Your task to perform on an android device: open app "Google Docs" (install if not already installed) Image 0: 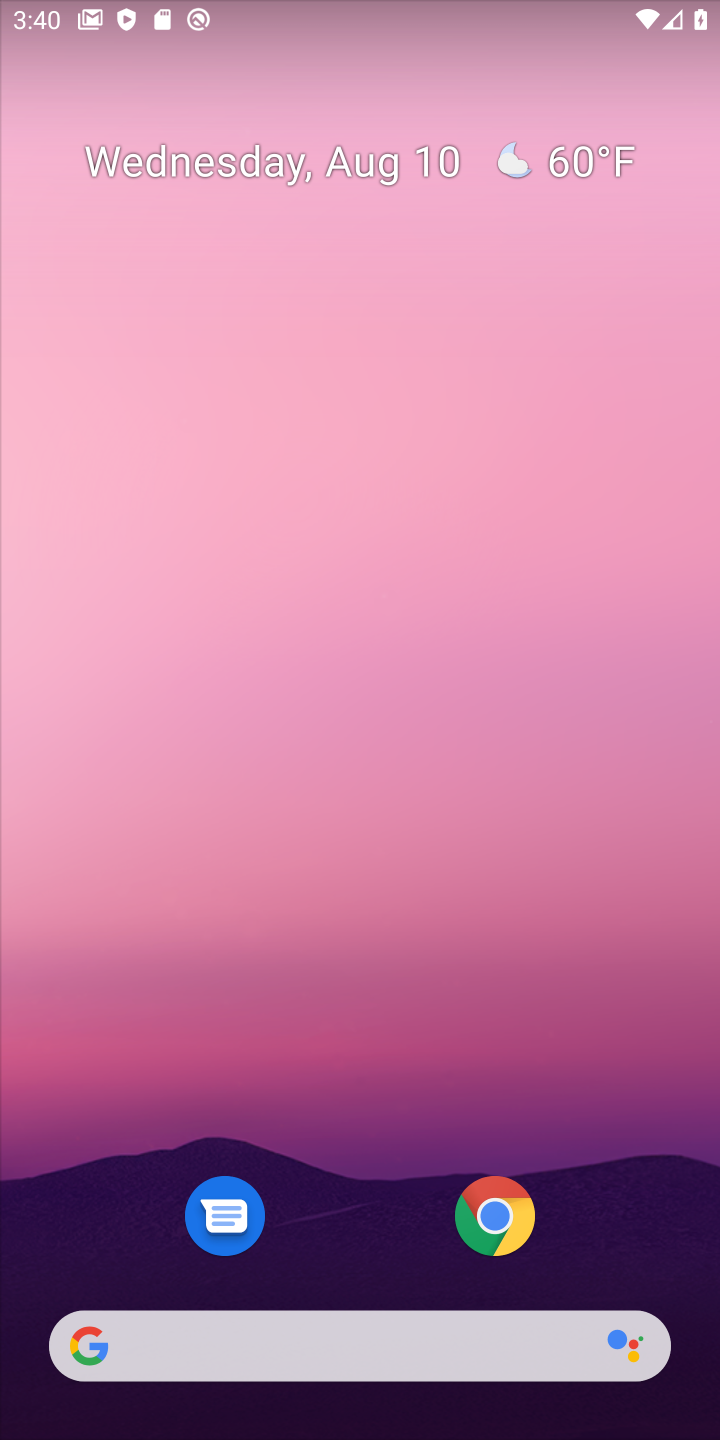
Step 0: drag from (438, 1303) to (448, 287)
Your task to perform on an android device: open app "Google Docs" (install if not already installed) Image 1: 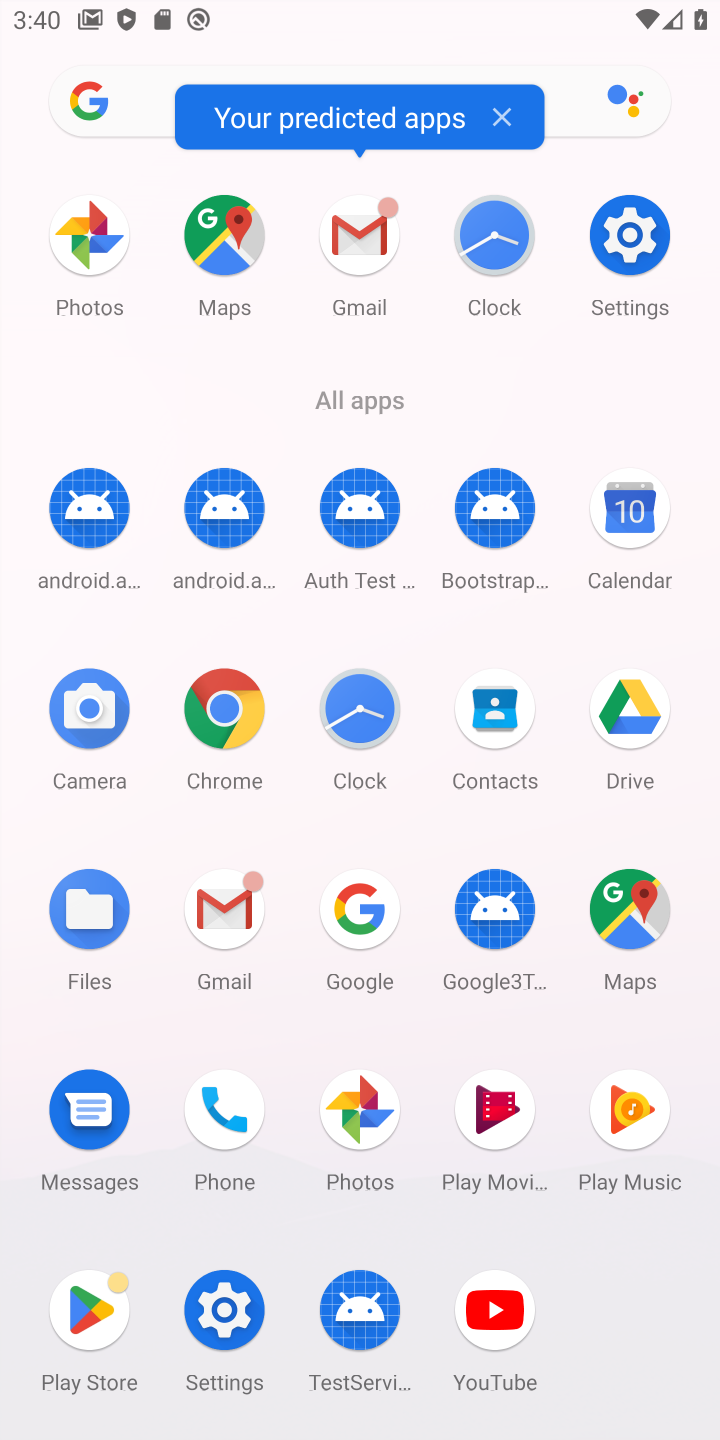
Step 1: click (100, 1340)
Your task to perform on an android device: open app "Google Docs" (install if not already installed) Image 2: 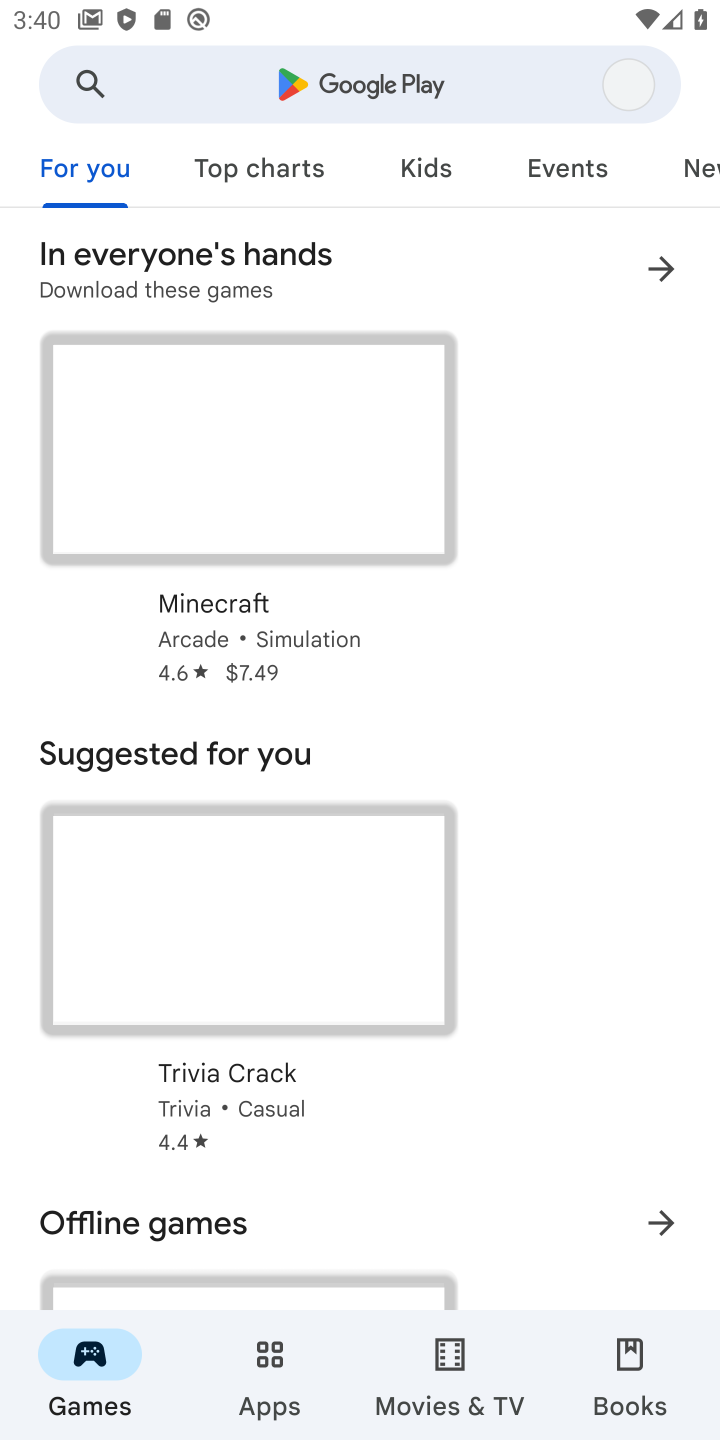
Step 2: click (403, 67)
Your task to perform on an android device: open app "Google Docs" (install if not already installed) Image 3: 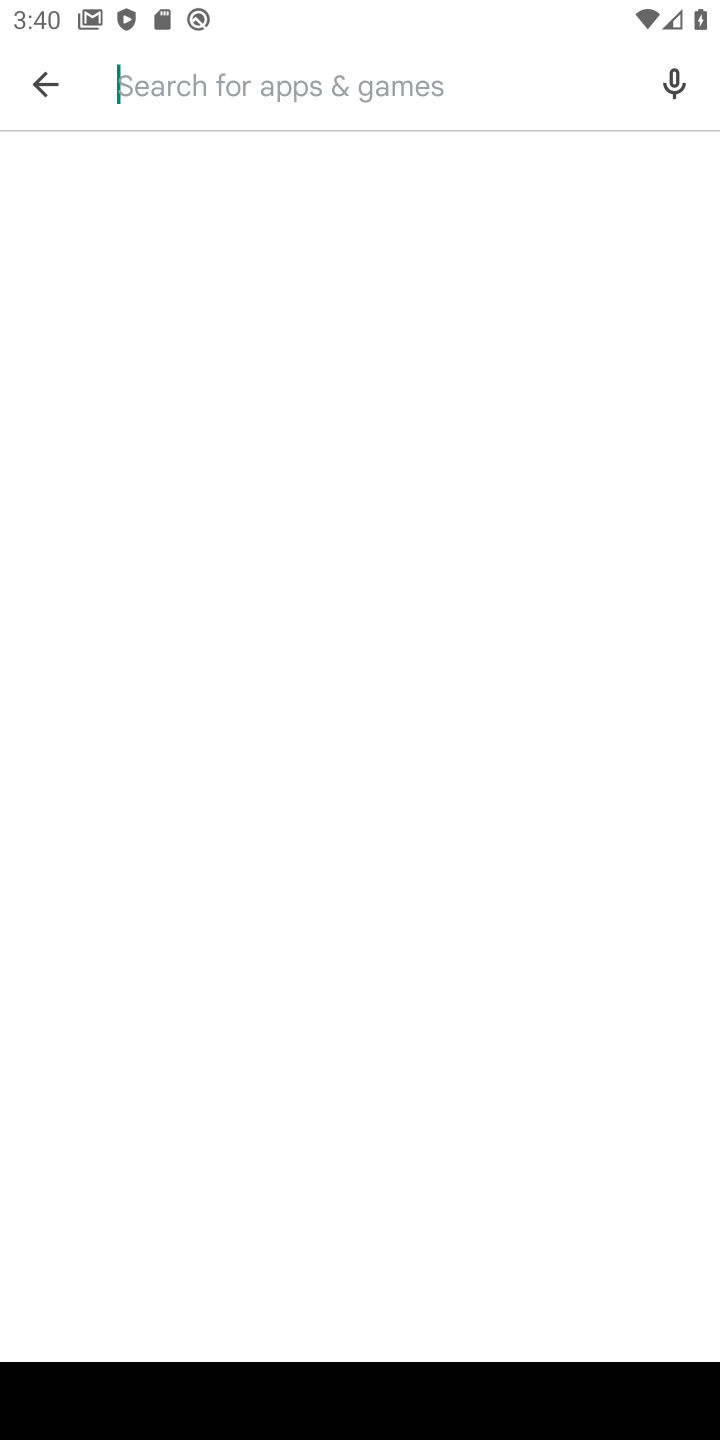
Step 3: type "Google Docs"
Your task to perform on an android device: open app "Google Docs" (install if not already installed) Image 4: 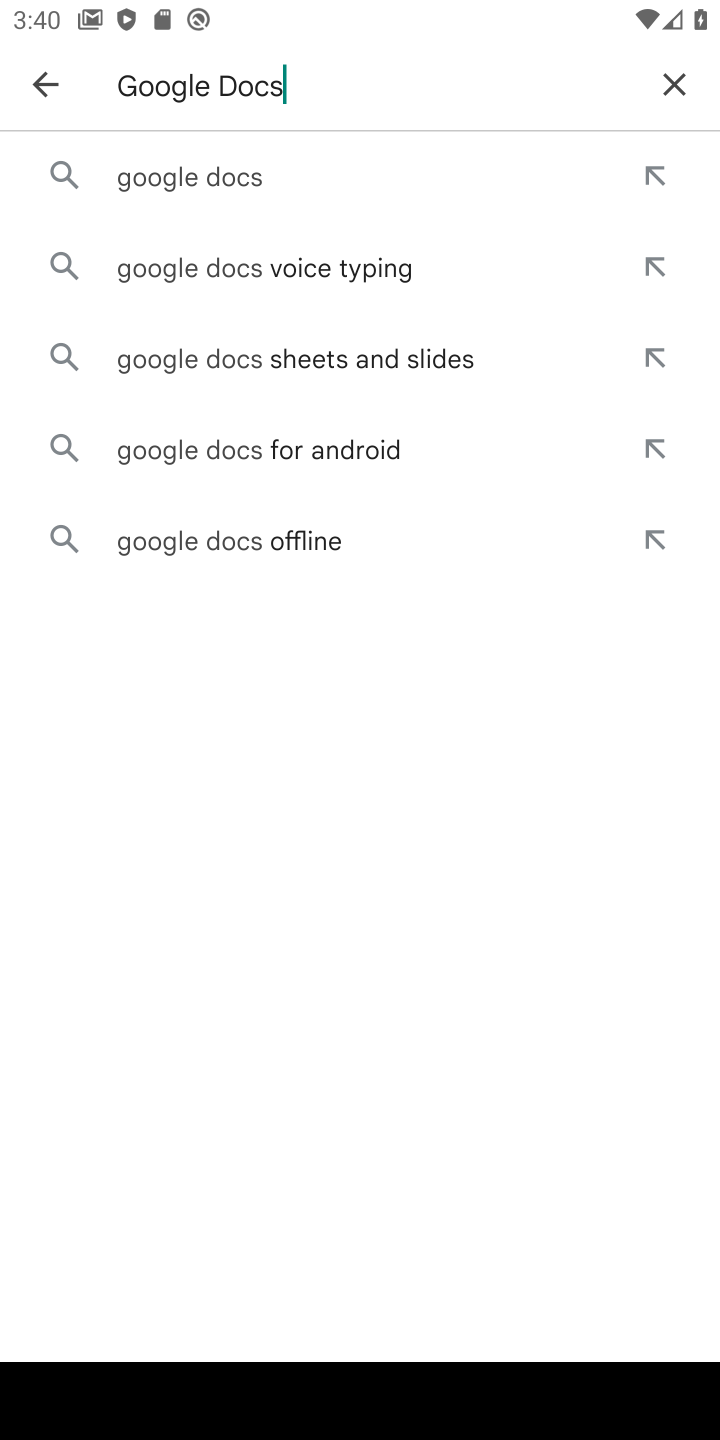
Step 4: click (159, 178)
Your task to perform on an android device: open app "Google Docs" (install if not already installed) Image 5: 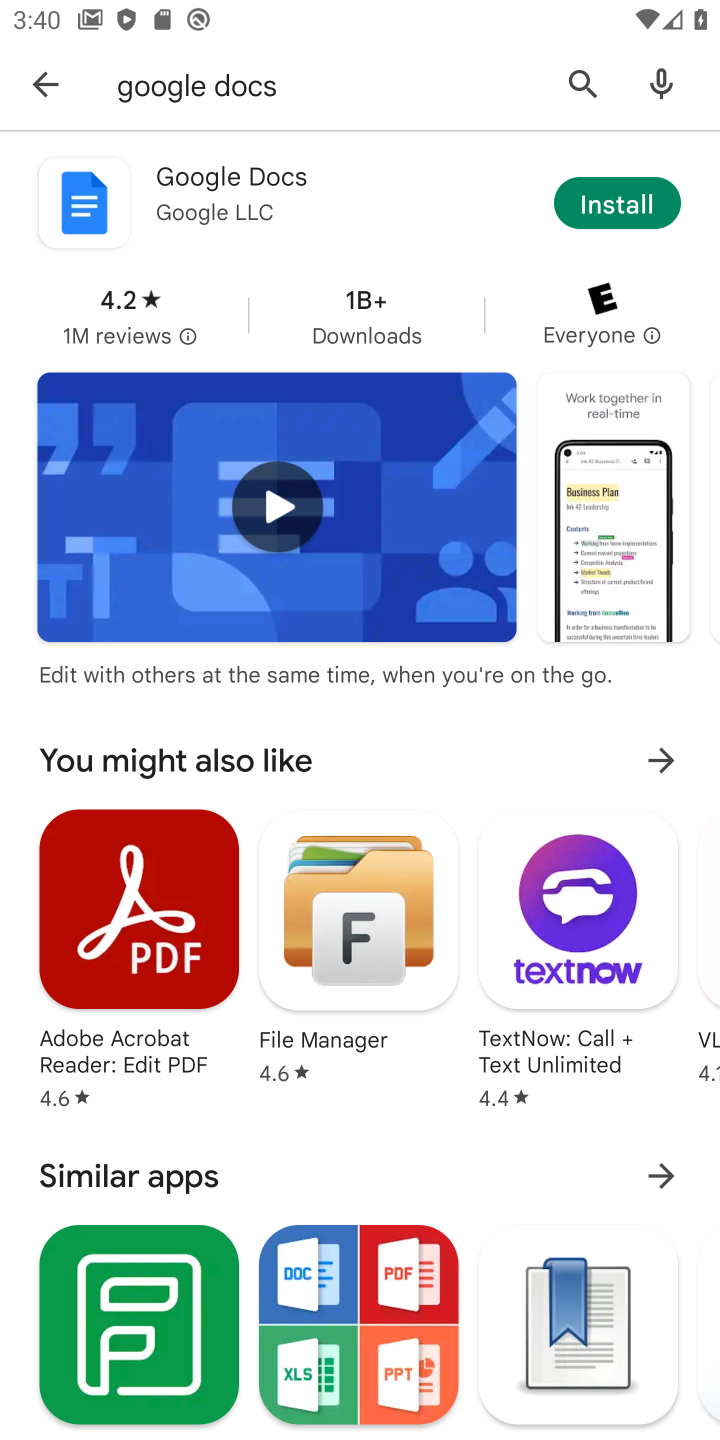
Step 5: click (602, 221)
Your task to perform on an android device: open app "Google Docs" (install if not already installed) Image 6: 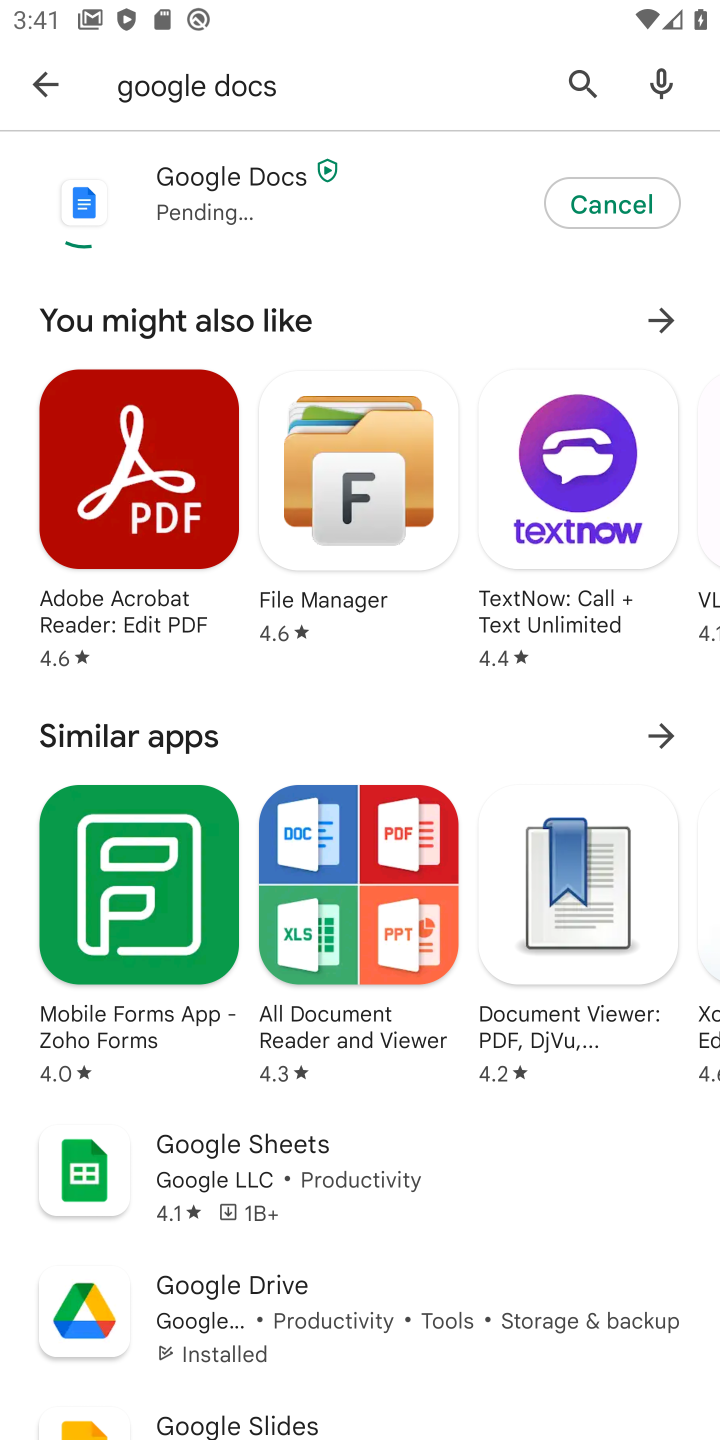
Step 6: click (53, 65)
Your task to perform on an android device: open app "Google Docs" (install if not already installed) Image 7: 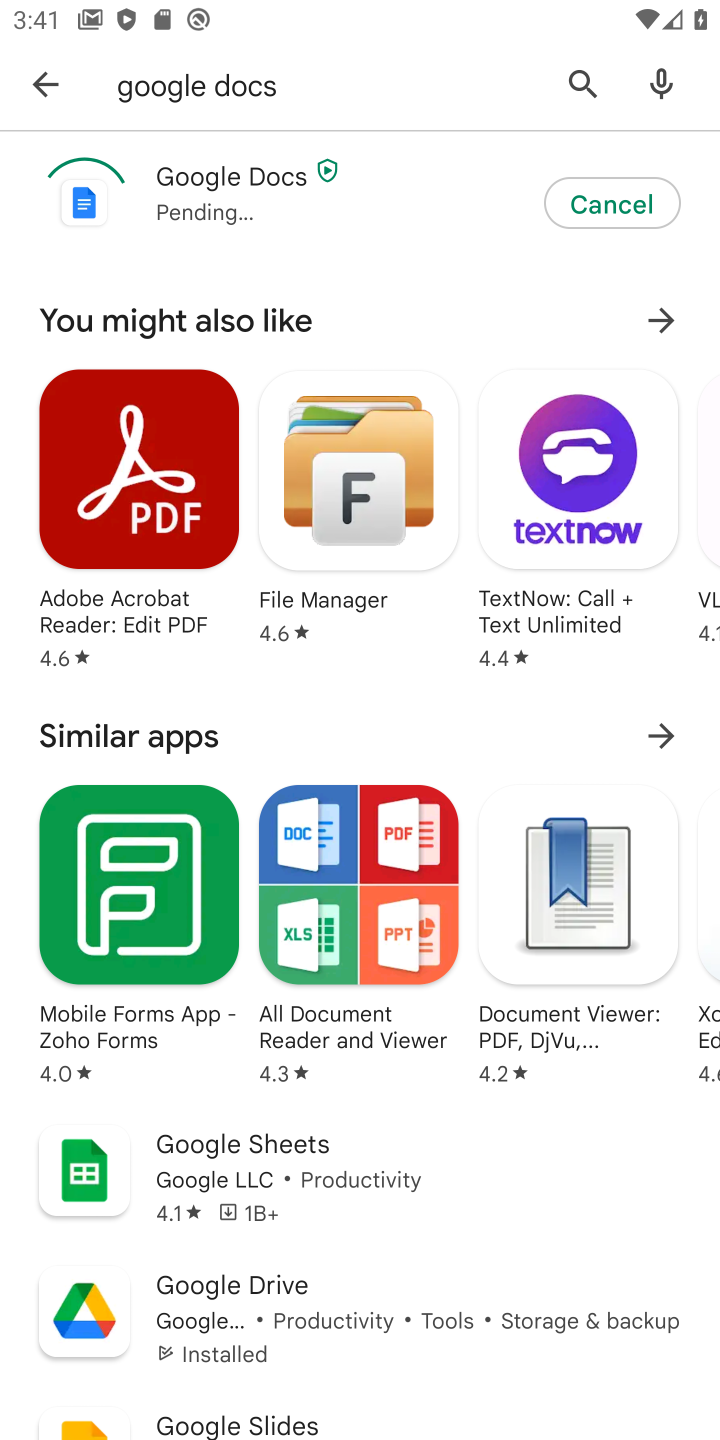
Step 7: click (80, 72)
Your task to perform on an android device: open app "Google Docs" (install if not already installed) Image 8: 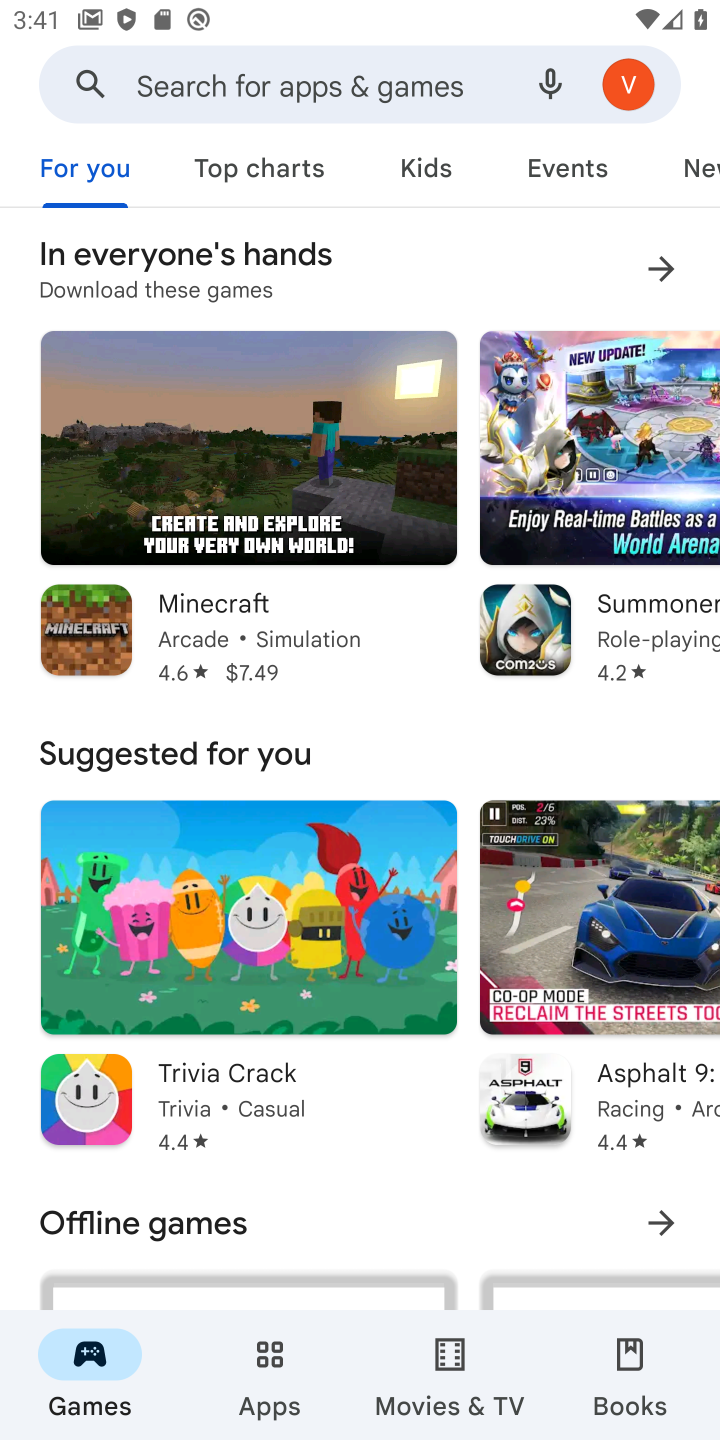
Step 8: click (630, 78)
Your task to perform on an android device: open app "Google Docs" (install if not already installed) Image 9: 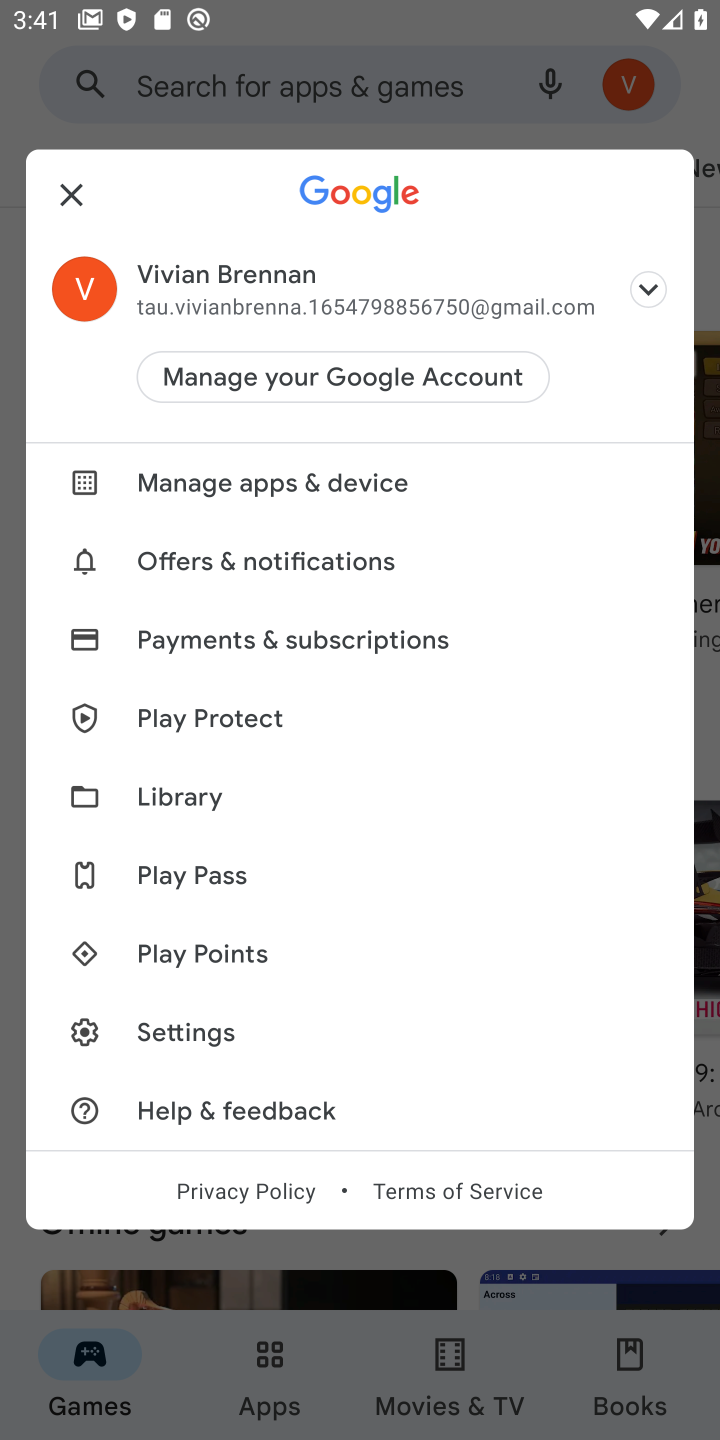
Step 9: click (269, 471)
Your task to perform on an android device: open app "Google Docs" (install if not already installed) Image 10: 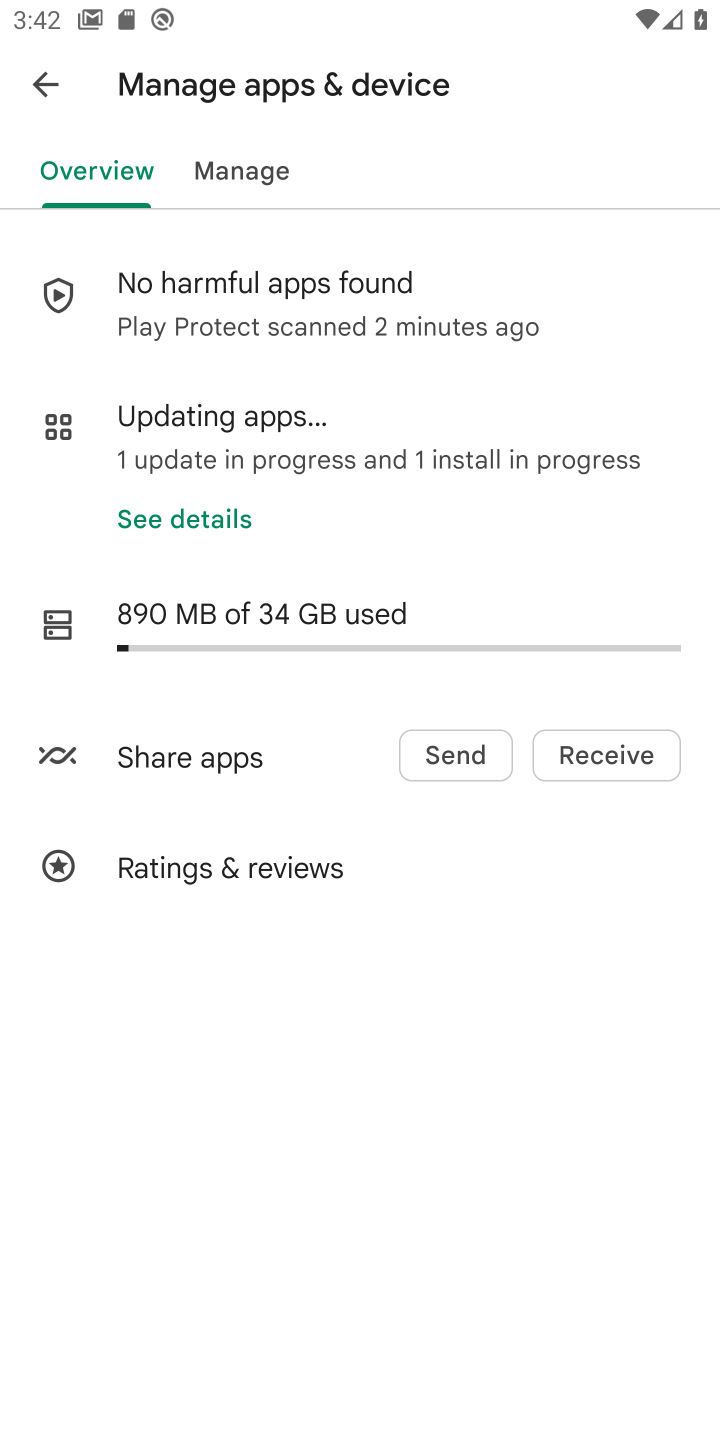
Step 10: click (168, 457)
Your task to perform on an android device: open app "Google Docs" (install if not already installed) Image 11: 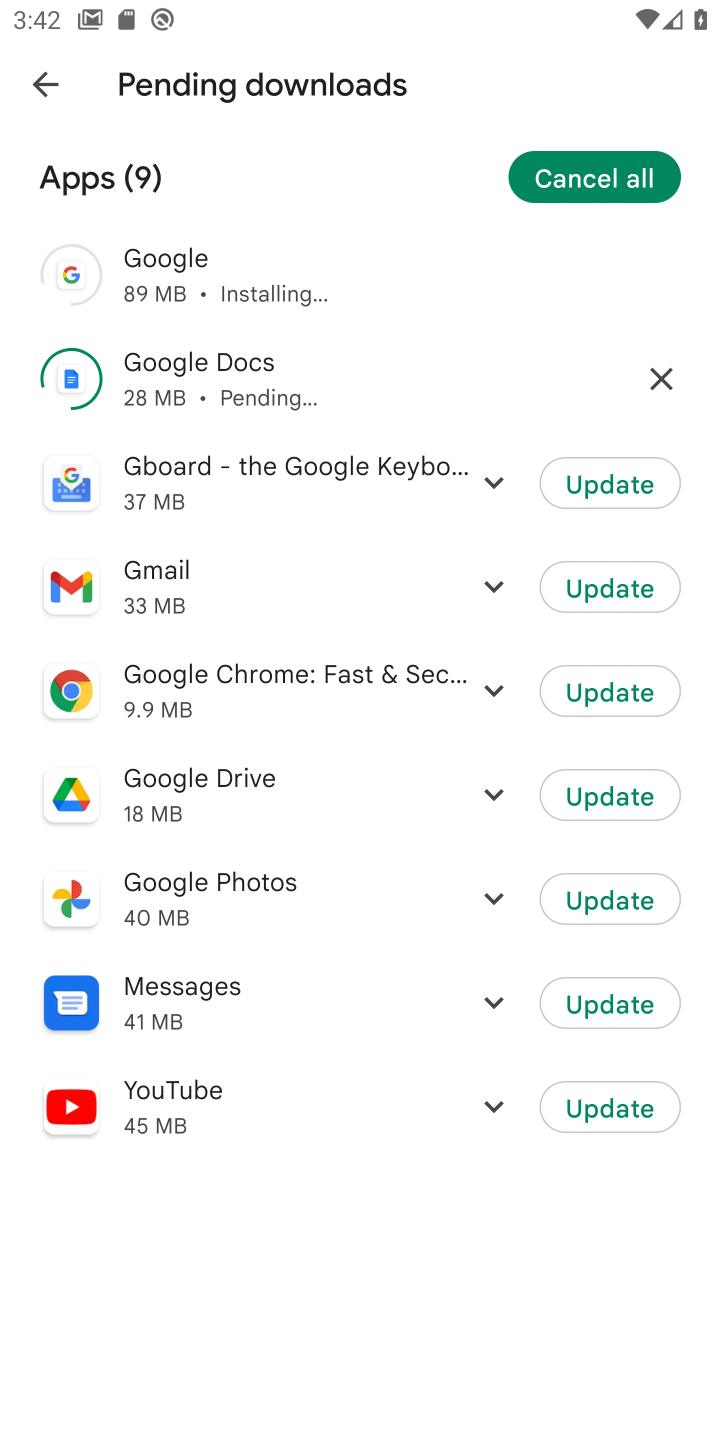
Step 11: click (226, 271)
Your task to perform on an android device: open app "Google Docs" (install if not already installed) Image 12: 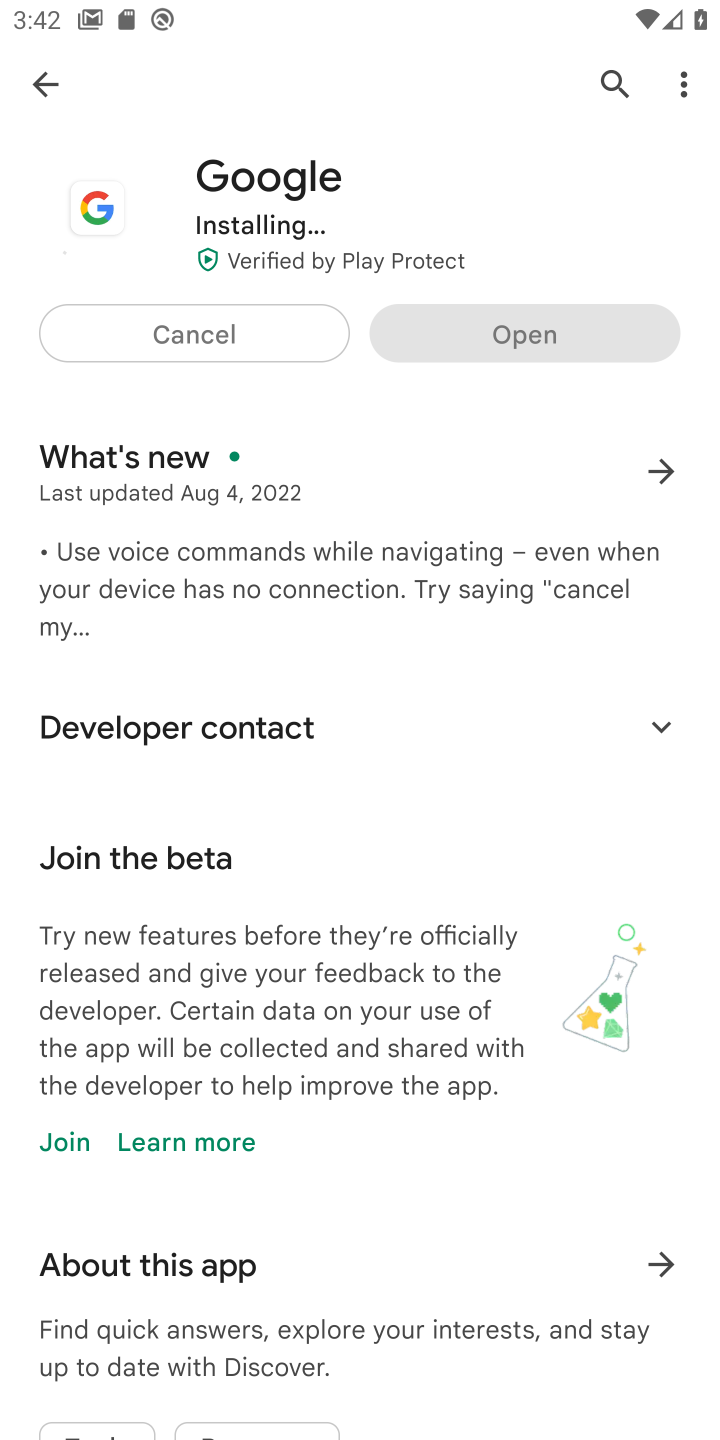
Step 12: click (251, 319)
Your task to perform on an android device: open app "Google Docs" (install if not already installed) Image 13: 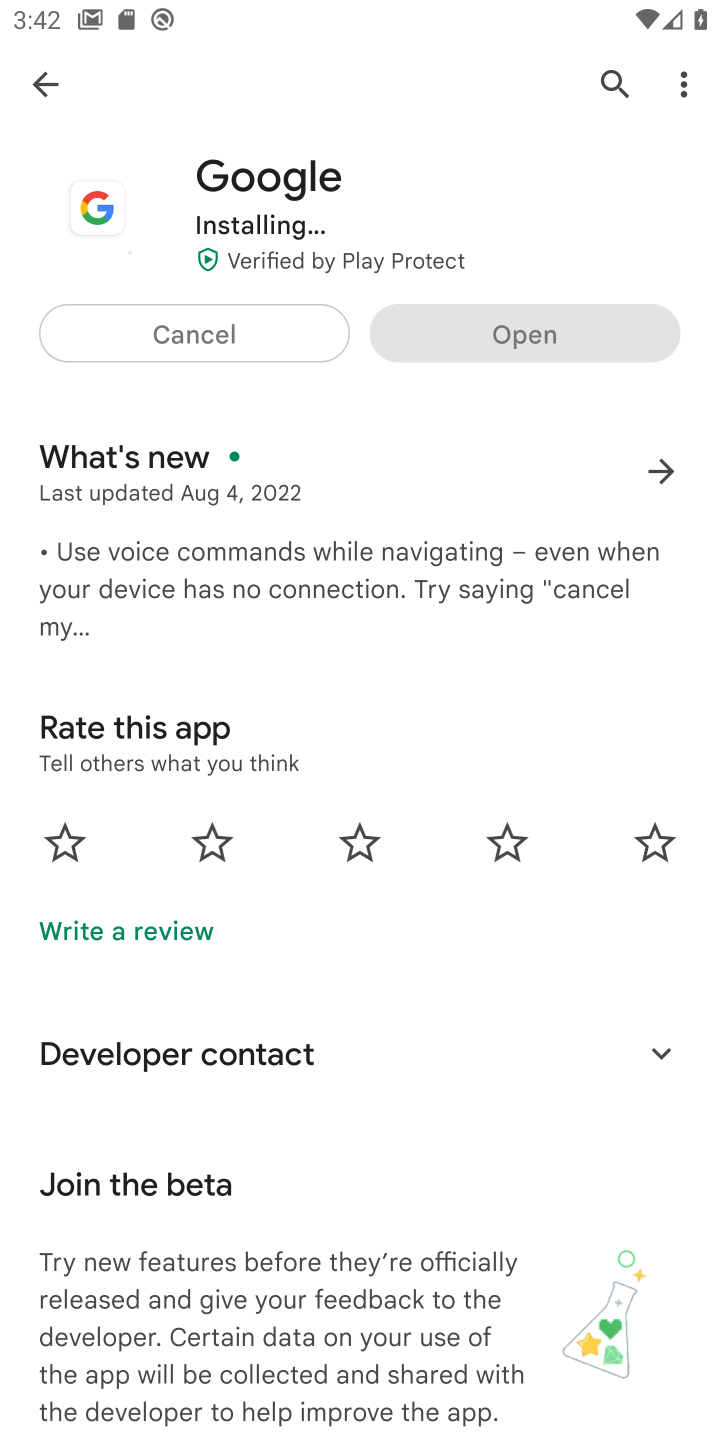
Step 13: click (237, 338)
Your task to perform on an android device: open app "Google Docs" (install if not already installed) Image 14: 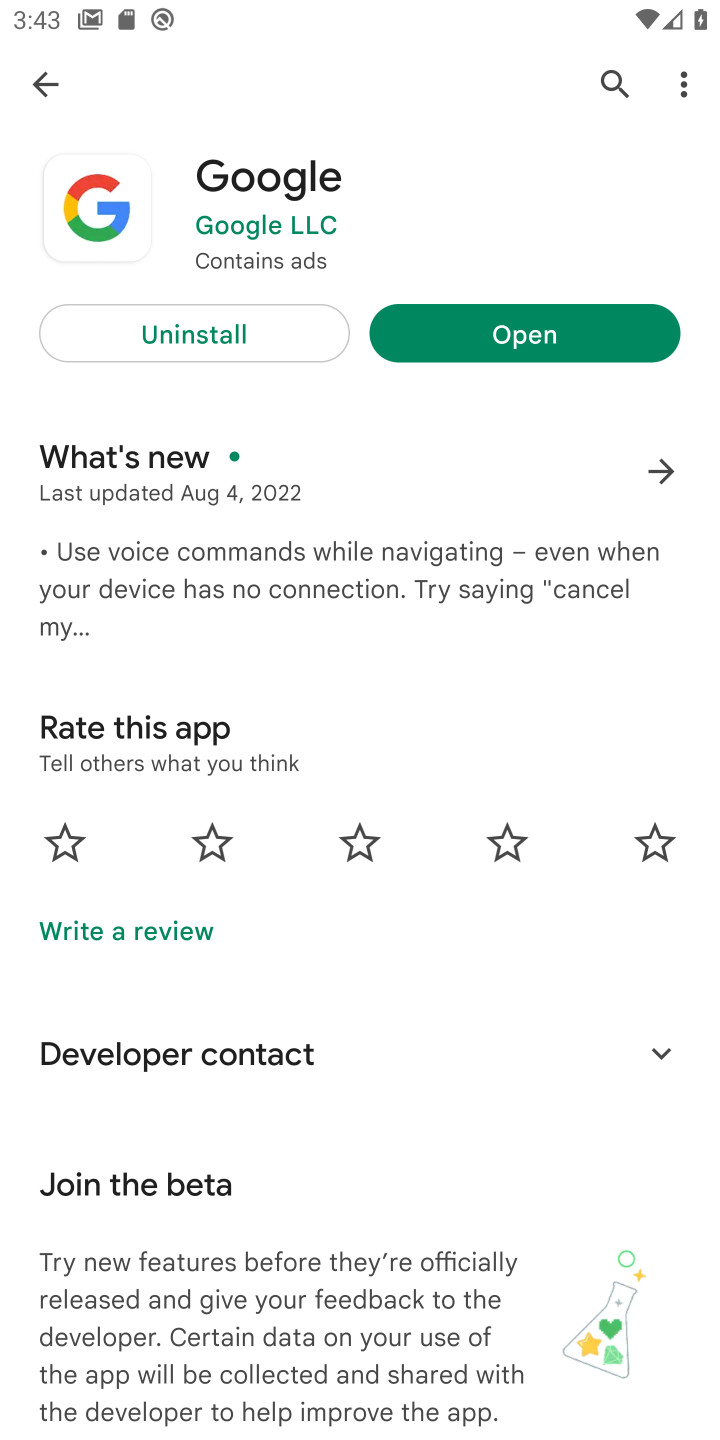
Step 14: click (73, 58)
Your task to perform on an android device: open app "Google Docs" (install if not already installed) Image 15: 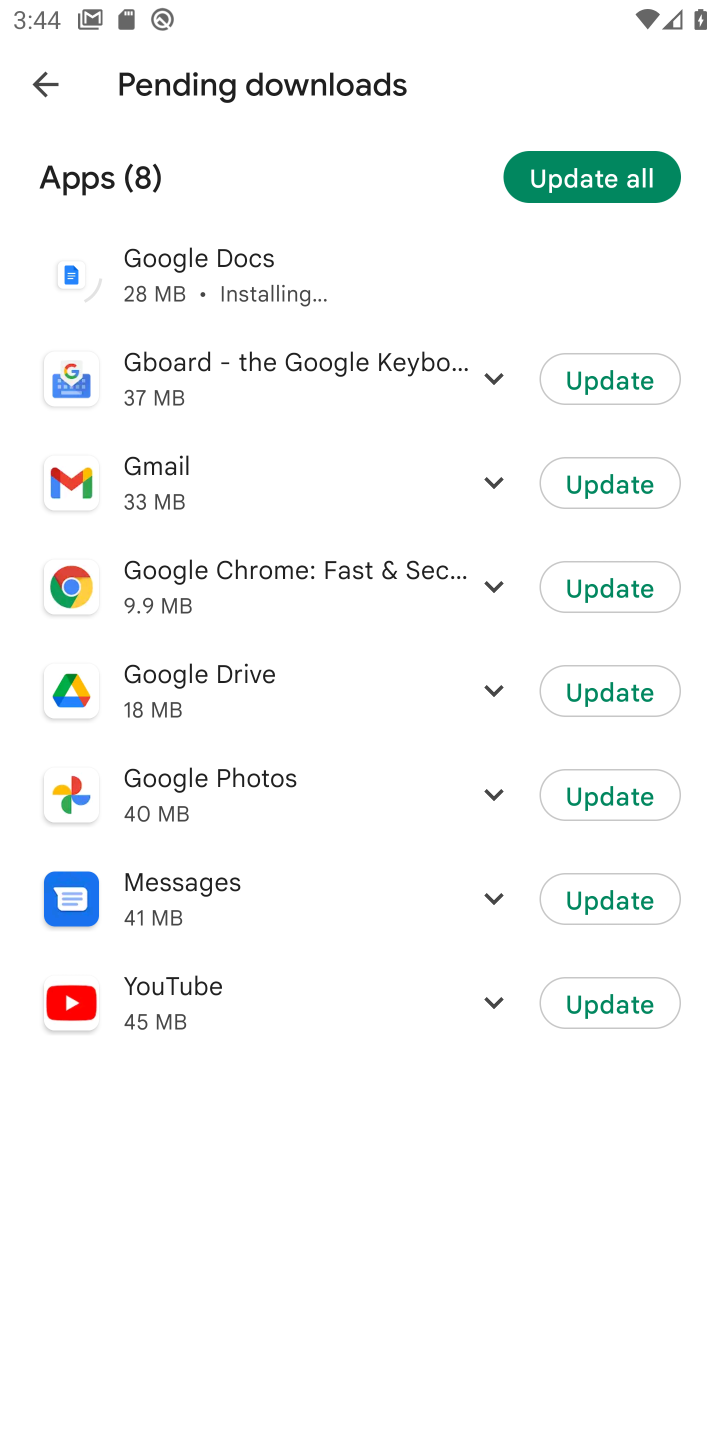
Step 15: click (179, 261)
Your task to perform on an android device: open app "Google Docs" (install if not already installed) Image 16: 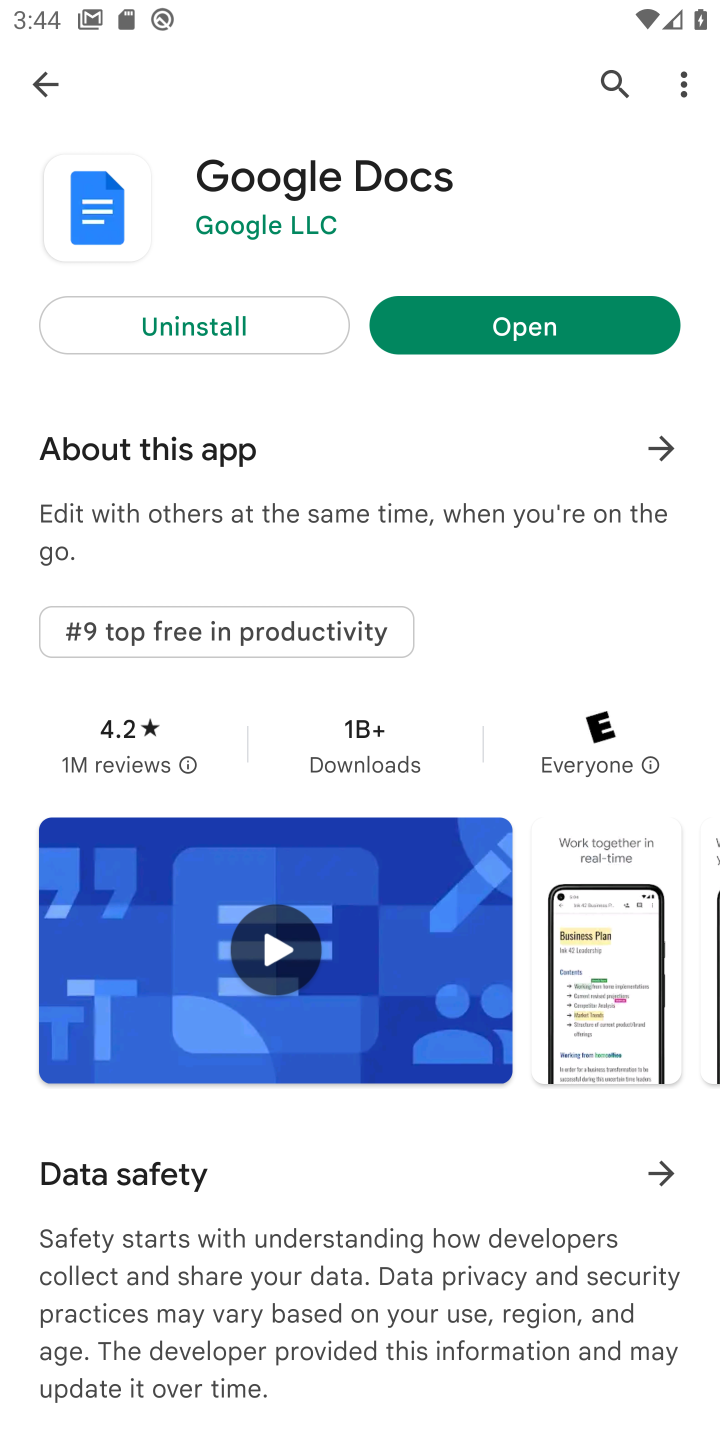
Step 16: click (483, 316)
Your task to perform on an android device: open app "Google Docs" (install if not already installed) Image 17: 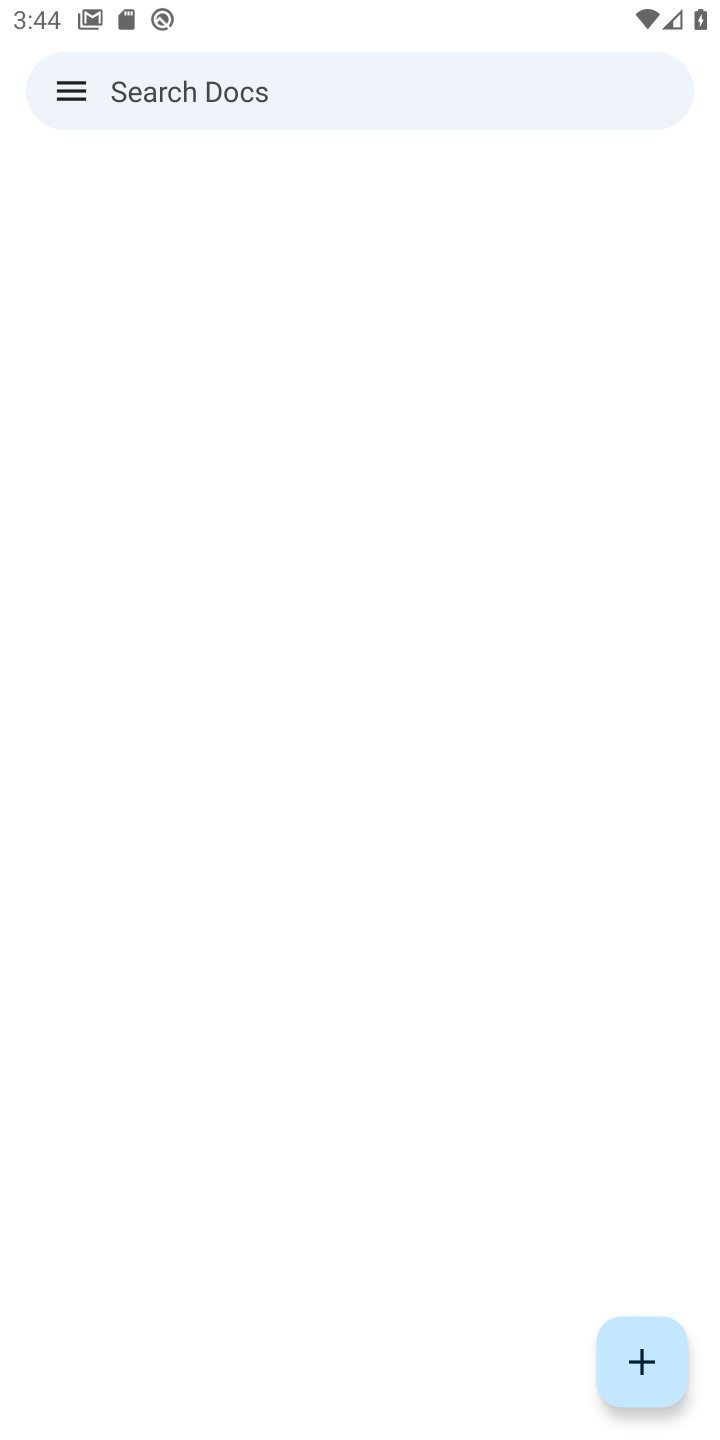
Step 17: task complete